Your task to perform on an android device: set the timer Image 0: 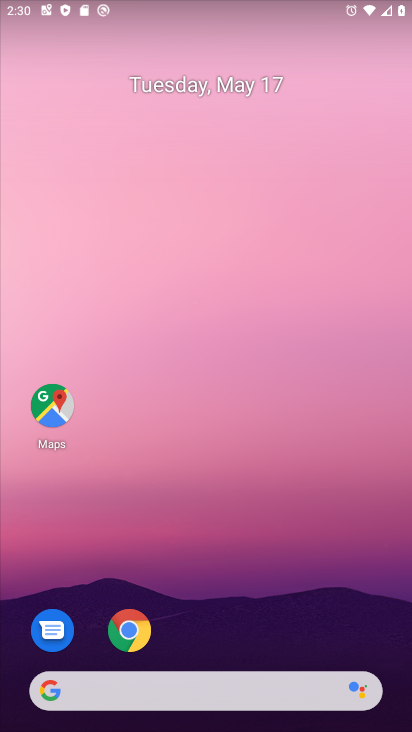
Step 0: drag from (297, 702) to (159, 106)
Your task to perform on an android device: set the timer Image 1: 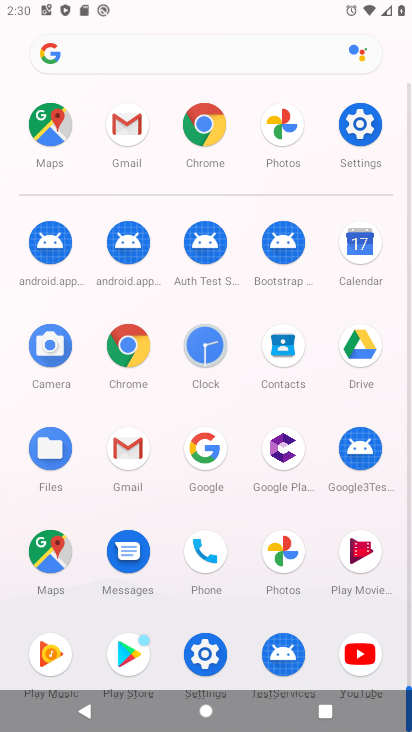
Step 1: click (199, 344)
Your task to perform on an android device: set the timer Image 2: 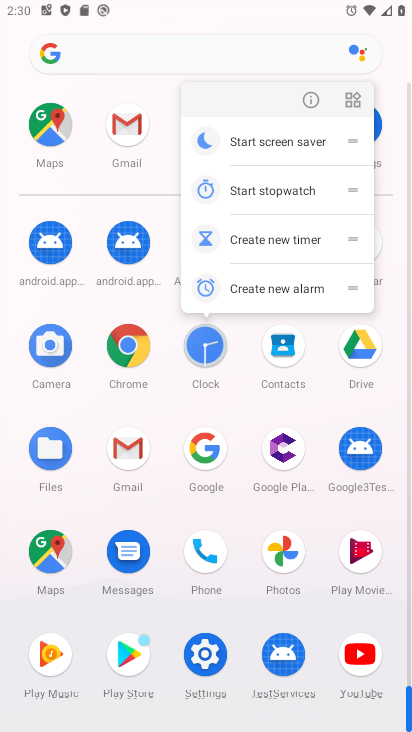
Step 2: click (205, 340)
Your task to perform on an android device: set the timer Image 3: 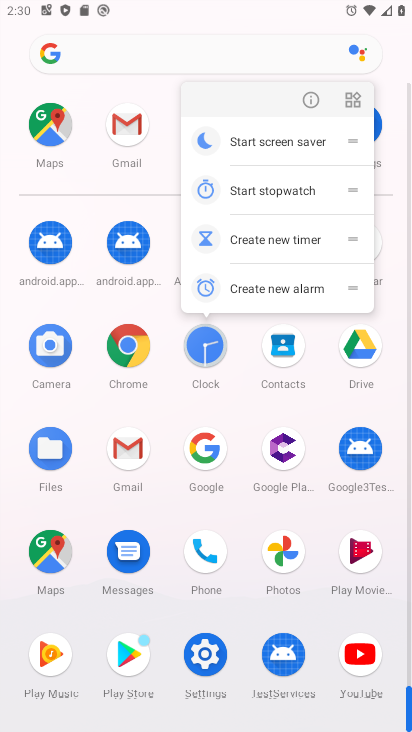
Step 3: click (205, 340)
Your task to perform on an android device: set the timer Image 4: 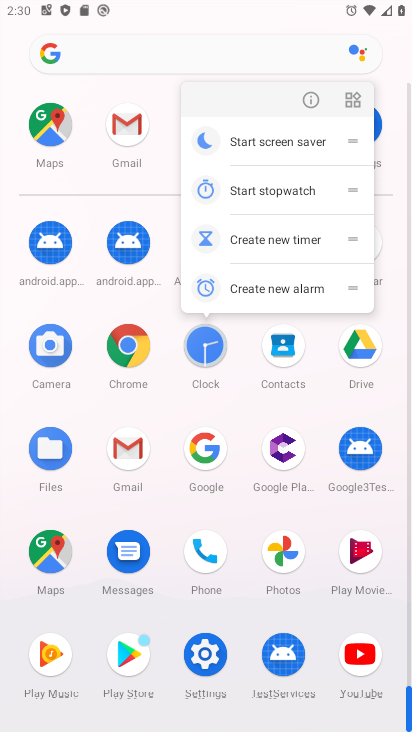
Step 4: click (205, 340)
Your task to perform on an android device: set the timer Image 5: 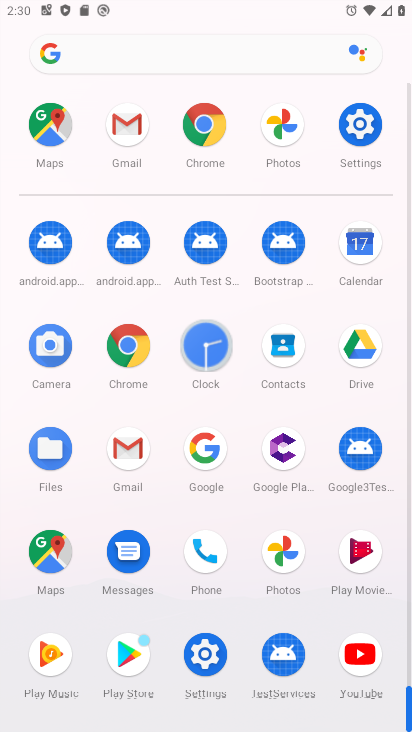
Step 5: click (205, 340)
Your task to perform on an android device: set the timer Image 6: 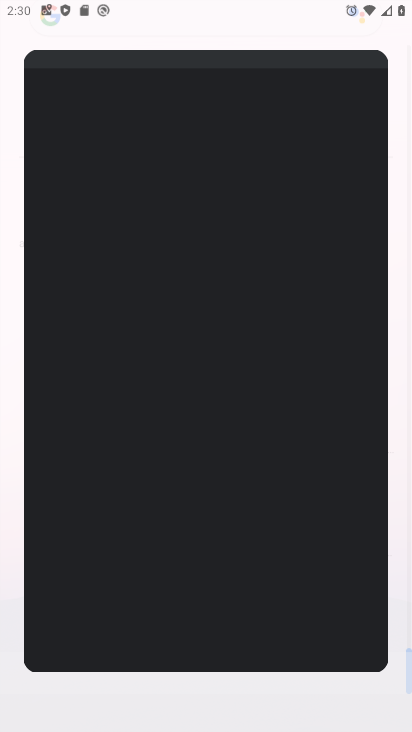
Step 6: click (205, 340)
Your task to perform on an android device: set the timer Image 7: 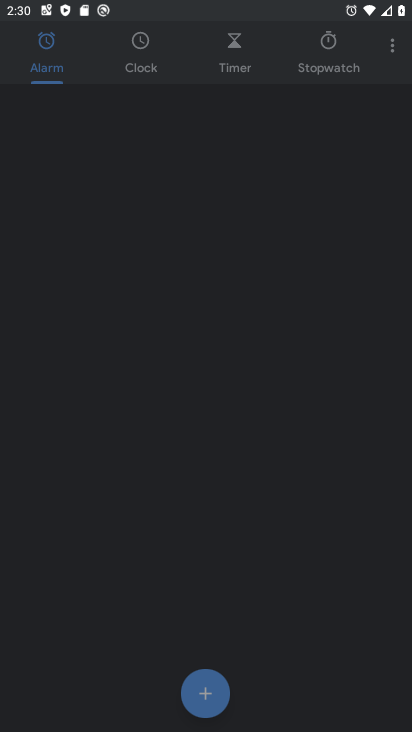
Step 7: click (205, 340)
Your task to perform on an android device: set the timer Image 8: 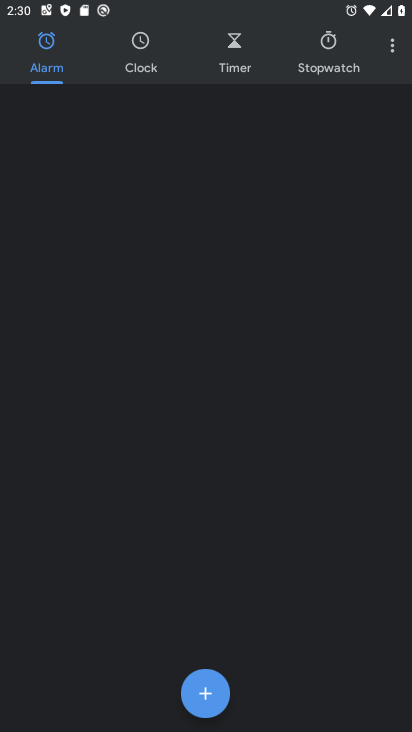
Step 8: click (205, 340)
Your task to perform on an android device: set the timer Image 9: 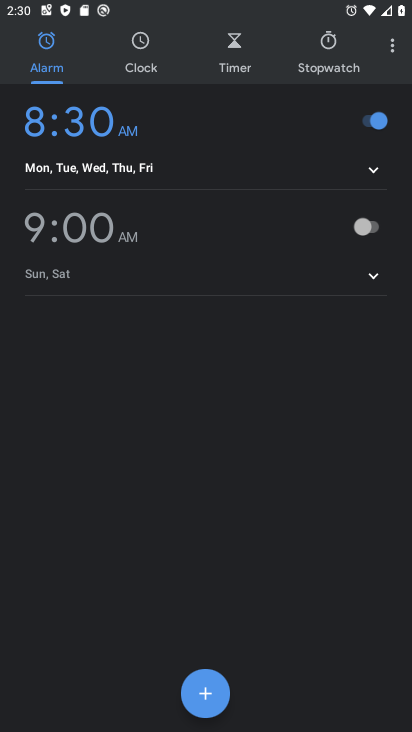
Step 9: click (242, 60)
Your task to perform on an android device: set the timer Image 10: 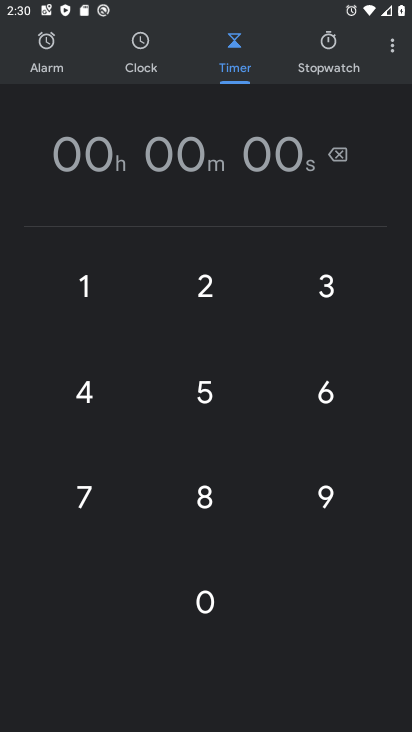
Step 10: click (193, 498)
Your task to perform on an android device: set the timer Image 11: 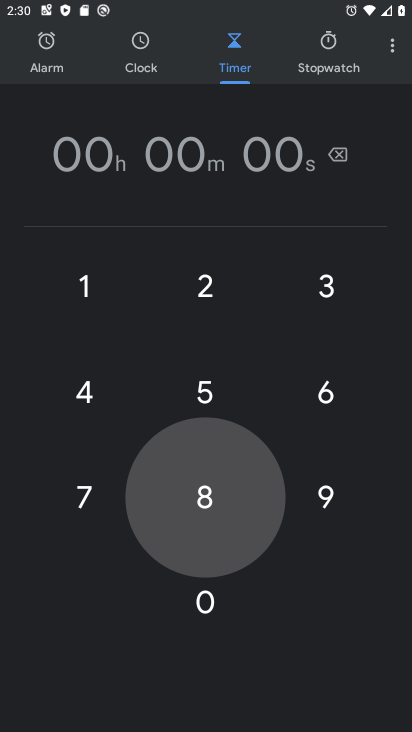
Step 11: click (193, 497)
Your task to perform on an android device: set the timer Image 12: 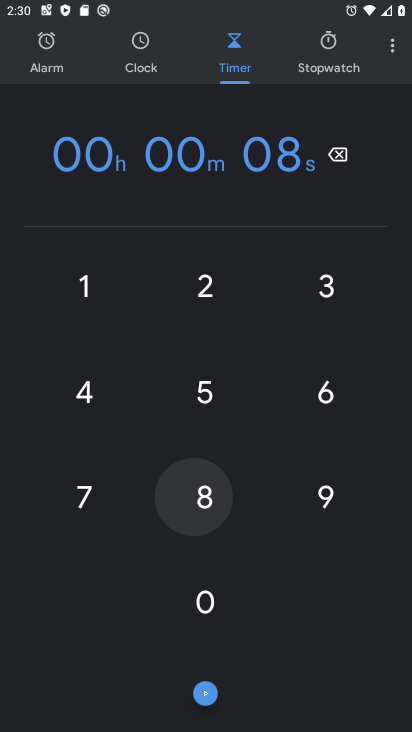
Step 12: click (194, 494)
Your task to perform on an android device: set the timer Image 13: 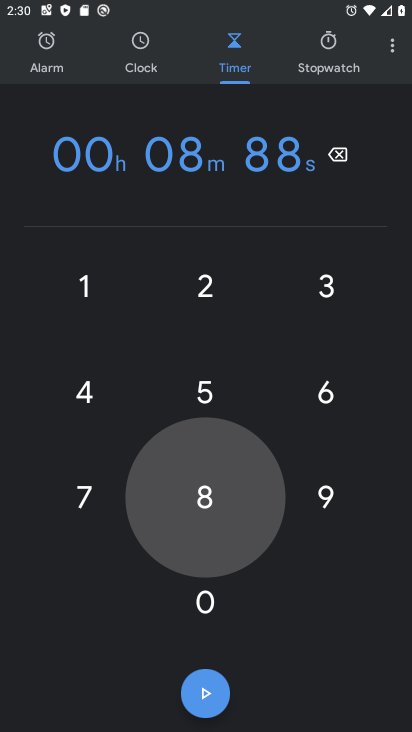
Step 13: click (193, 483)
Your task to perform on an android device: set the timer Image 14: 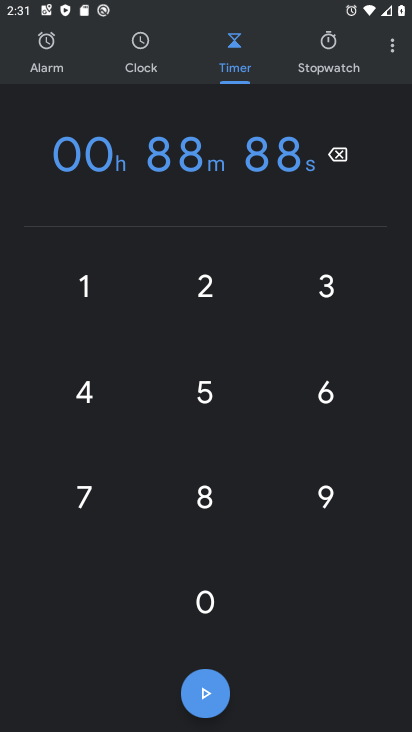
Step 14: click (196, 509)
Your task to perform on an android device: set the timer Image 15: 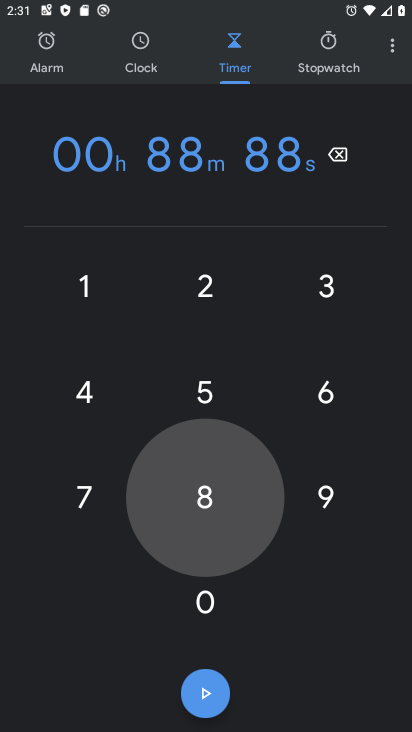
Step 15: click (198, 508)
Your task to perform on an android device: set the timer Image 16: 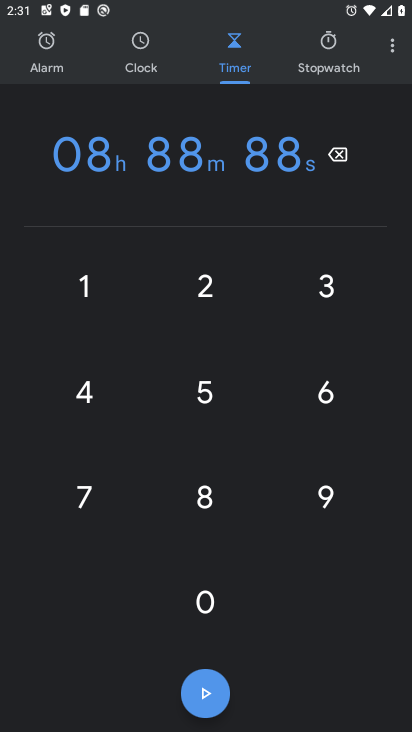
Step 16: click (199, 508)
Your task to perform on an android device: set the timer Image 17: 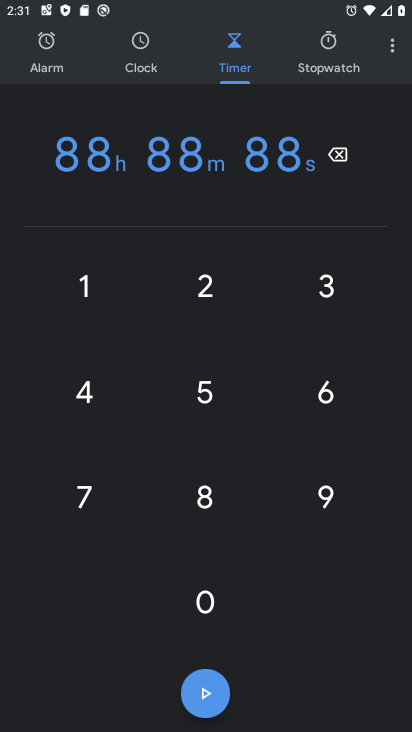
Step 17: click (189, 486)
Your task to perform on an android device: set the timer Image 18: 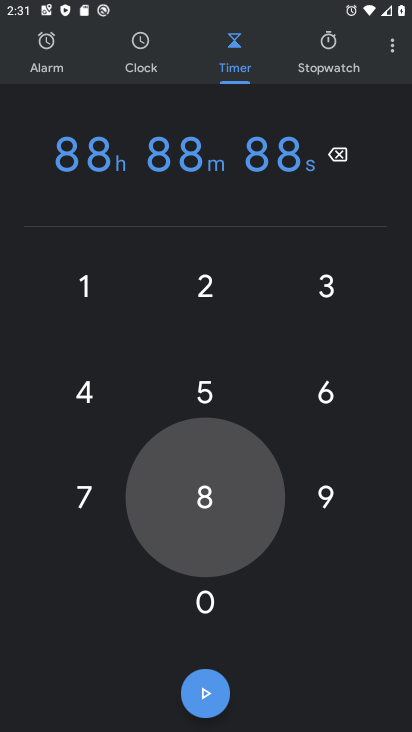
Step 18: click (203, 493)
Your task to perform on an android device: set the timer Image 19: 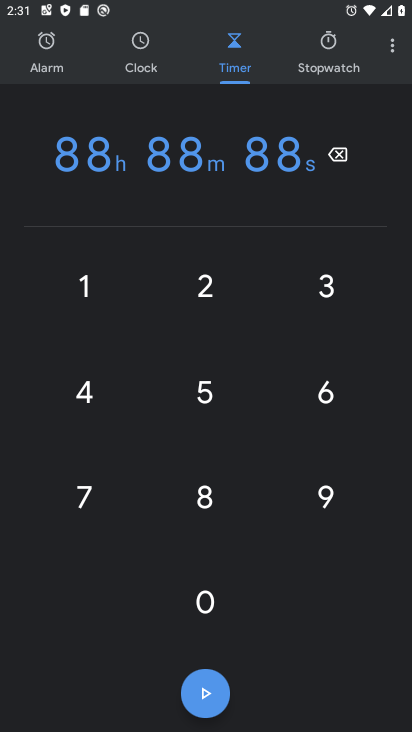
Step 19: click (203, 493)
Your task to perform on an android device: set the timer Image 20: 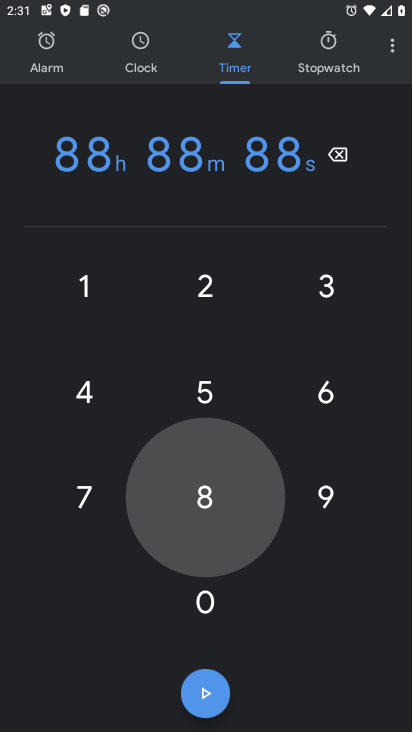
Step 20: click (203, 493)
Your task to perform on an android device: set the timer Image 21: 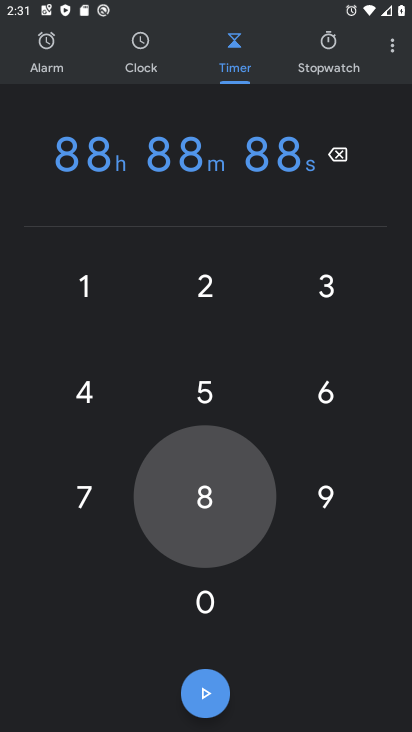
Step 21: click (203, 493)
Your task to perform on an android device: set the timer Image 22: 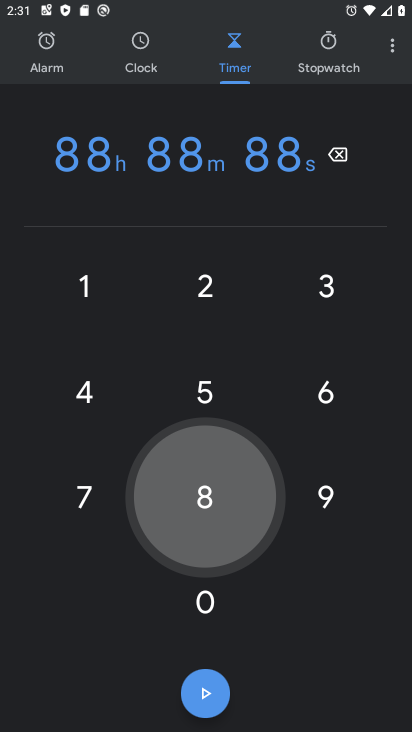
Step 22: click (203, 493)
Your task to perform on an android device: set the timer Image 23: 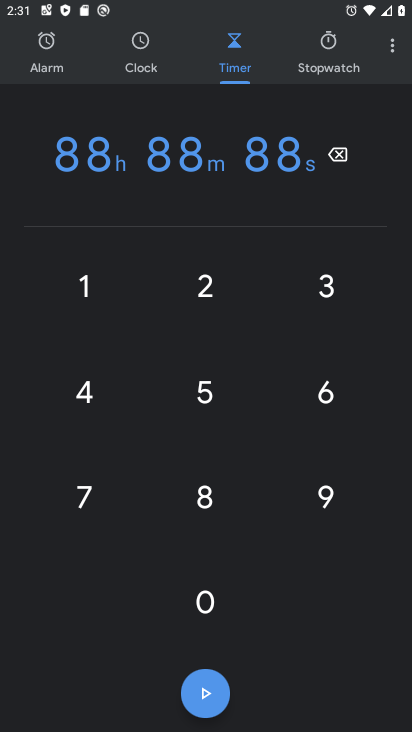
Step 23: click (201, 686)
Your task to perform on an android device: set the timer Image 24: 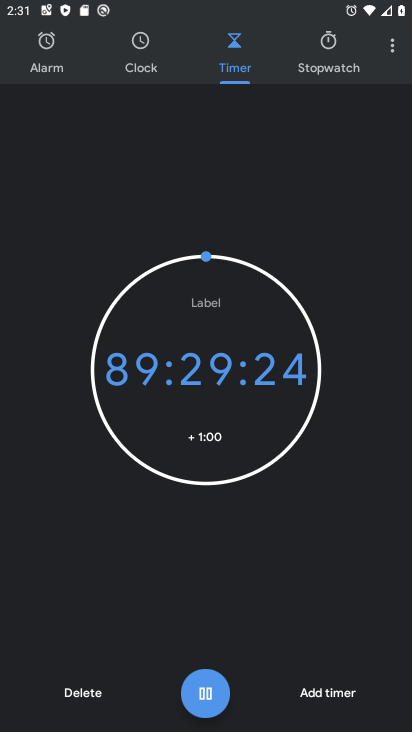
Step 24: click (208, 683)
Your task to perform on an android device: set the timer Image 25: 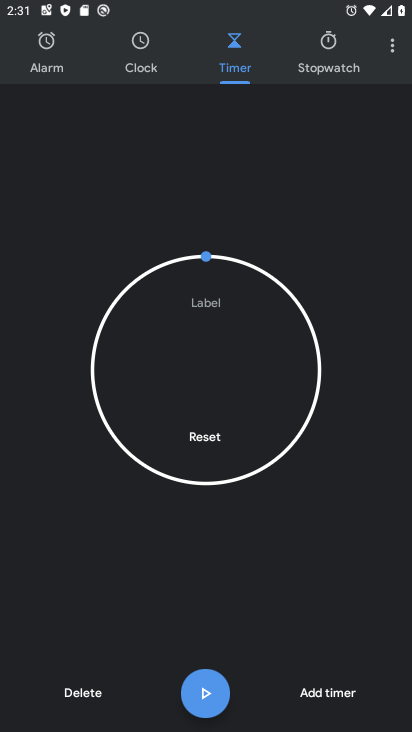
Step 25: click (208, 692)
Your task to perform on an android device: set the timer Image 26: 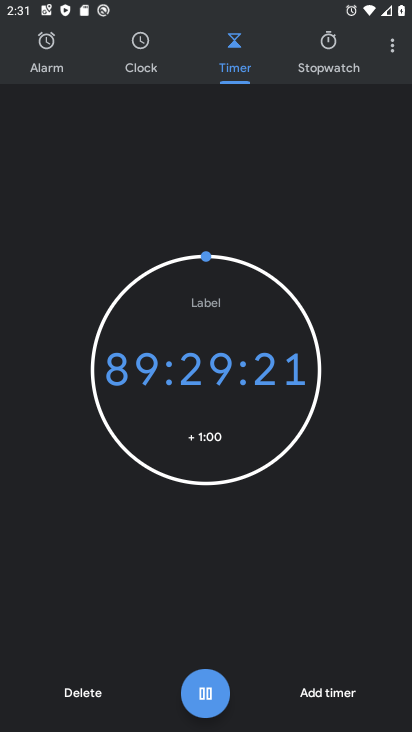
Step 26: task complete